Your task to perform on an android device: turn on data saver in the chrome app Image 0: 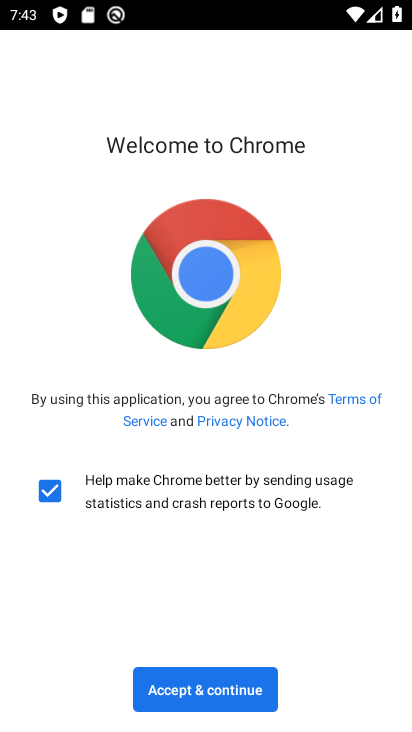
Step 0: click (234, 698)
Your task to perform on an android device: turn on data saver in the chrome app Image 1: 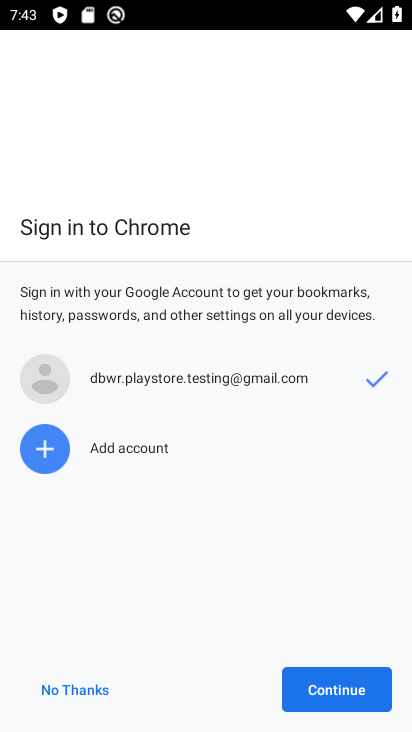
Step 1: click (319, 697)
Your task to perform on an android device: turn on data saver in the chrome app Image 2: 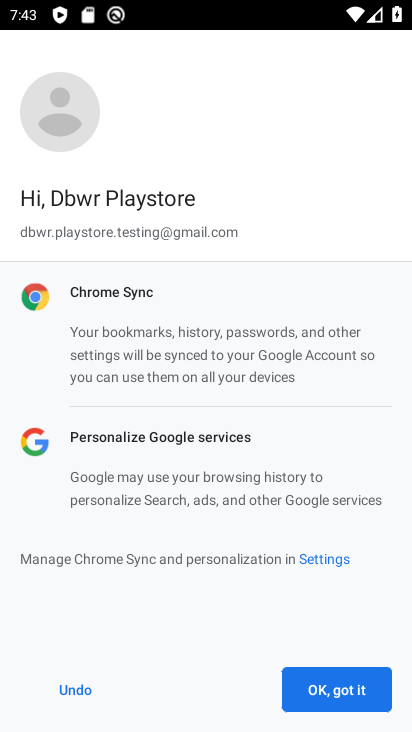
Step 2: click (331, 703)
Your task to perform on an android device: turn on data saver in the chrome app Image 3: 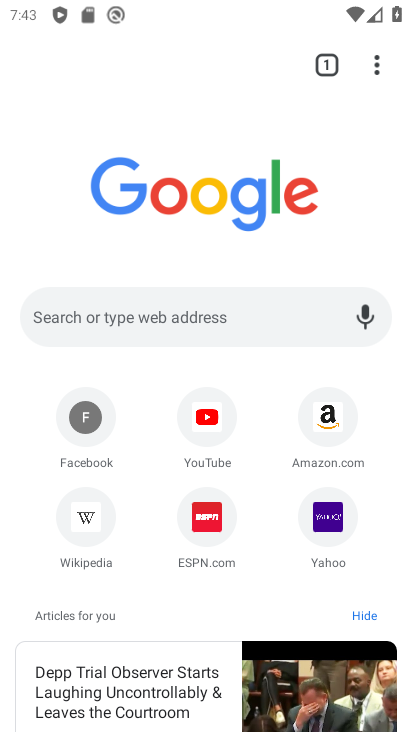
Step 3: click (377, 62)
Your task to perform on an android device: turn on data saver in the chrome app Image 4: 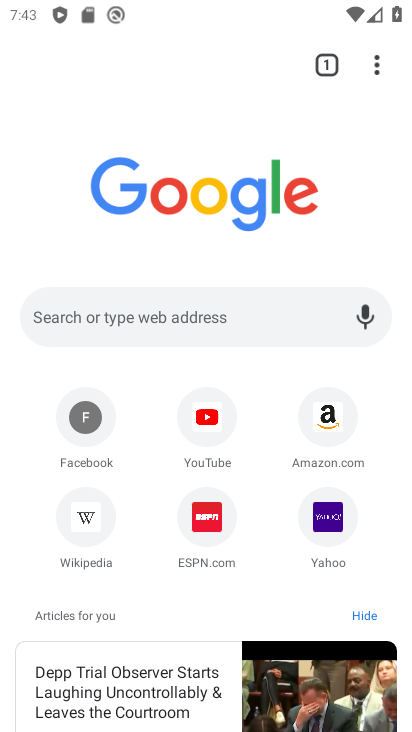
Step 4: click (381, 69)
Your task to perform on an android device: turn on data saver in the chrome app Image 5: 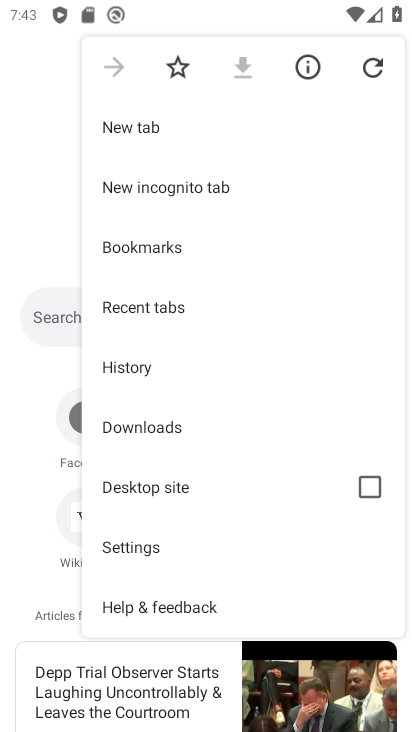
Step 5: drag from (207, 511) to (267, 151)
Your task to perform on an android device: turn on data saver in the chrome app Image 6: 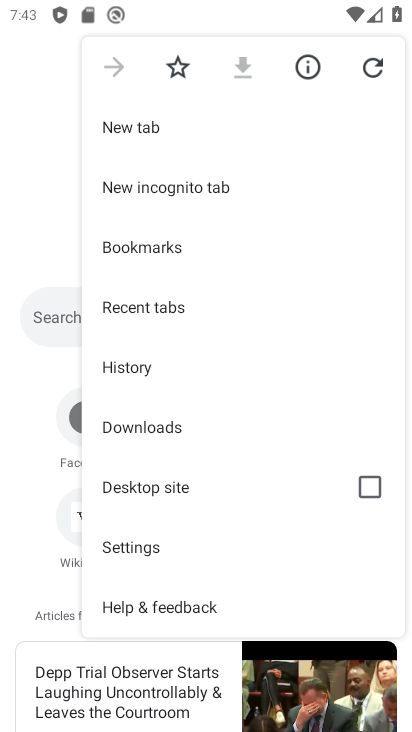
Step 6: click (133, 557)
Your task to perform on an android device: turn on data saver in the chrome app Image 7: 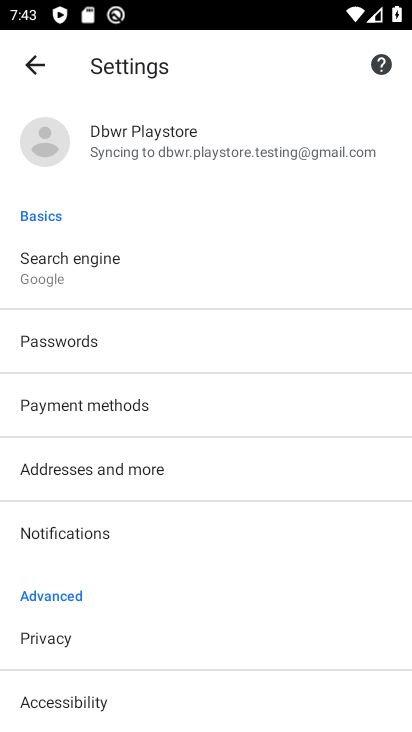
Step 7: drag from (187, 460) to (279, 174)
Your task to perform on an android device: turn on data saver in the chrome app Image 8: 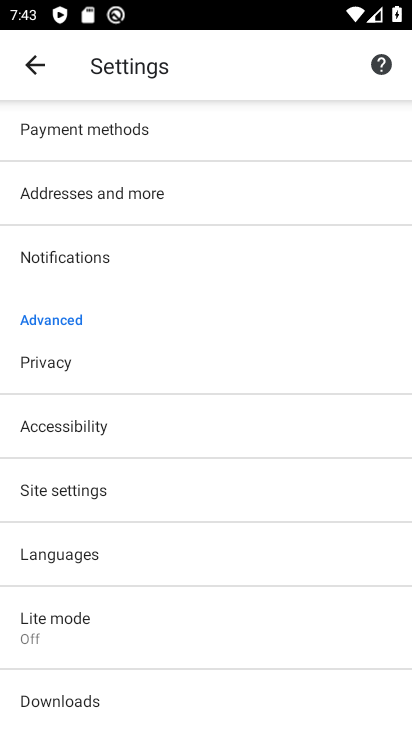
Step 8: click (83, 628)
Your task to perform on an android device: turn on data saver in the chrome app Image 9: 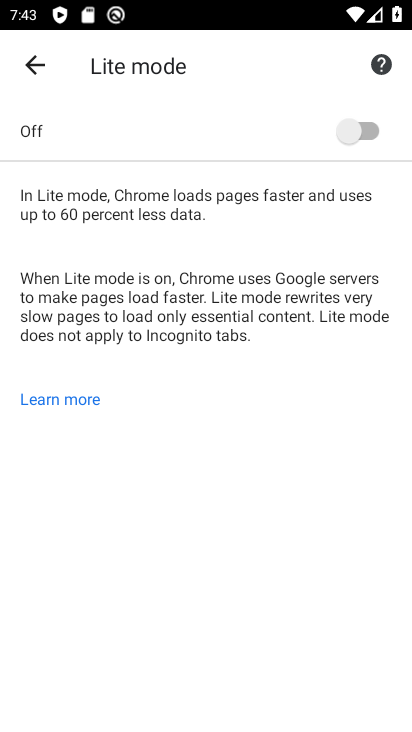
Step 9: click (363, 142)
Your task to perform on an android device: turn on data saver in the chrome app Image 10: 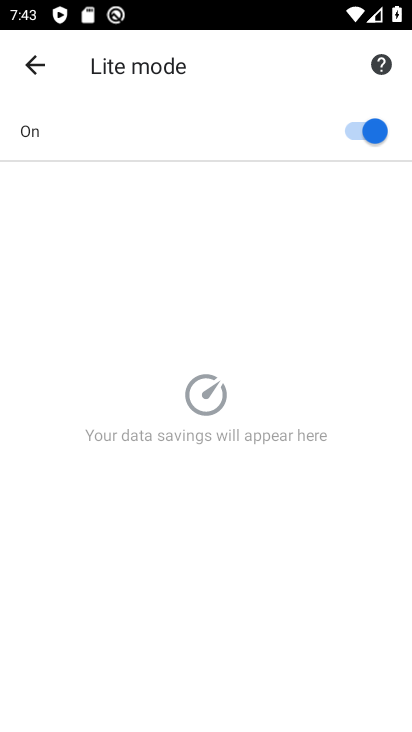
Step 10: task complete